Your task to perform on an android device: turn off smart reply in the gmail app Image 0: 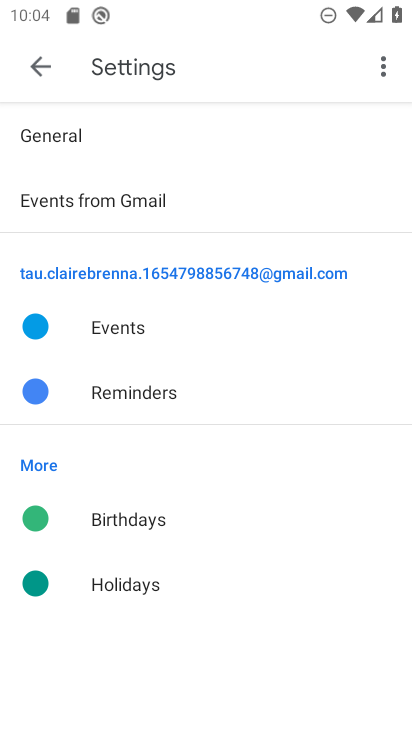
Step 0: press home button
Your task to perform on an android device: turn off smart reply in the gmail app Image 1: 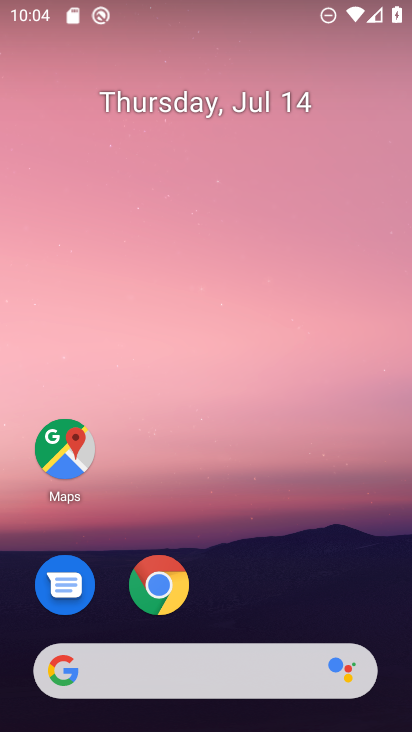
Step 1: drag from (241, 619) to (140, 120)
Your task to perform on an android device: turn off smart reply in the gmail app Image 2: 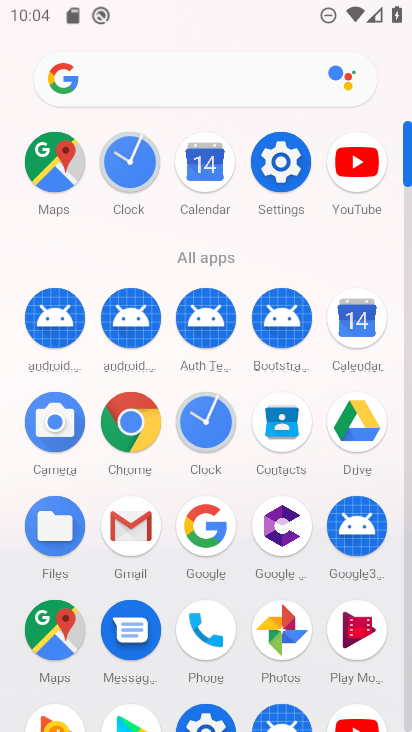
Step 2: click (135, 527)
Your task to perform on an android device: turn off smart reply in the gmail app Image 3: 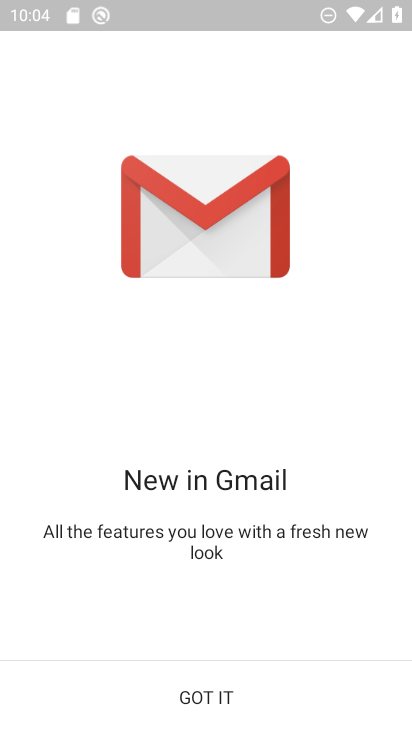
Step 3: click (195, 702)
Your task to perform on an android device: turn off smart reply in the gmail app Image 4: 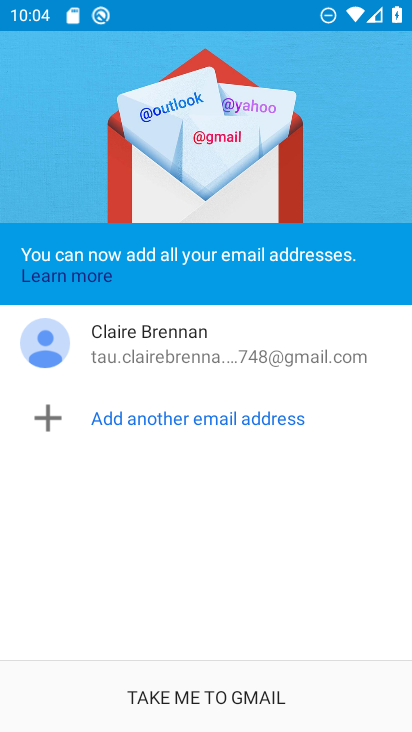
Step 4: click (195, 702)
Your task to perform on an android device: turn off smart reply in the gmail app Image 5: 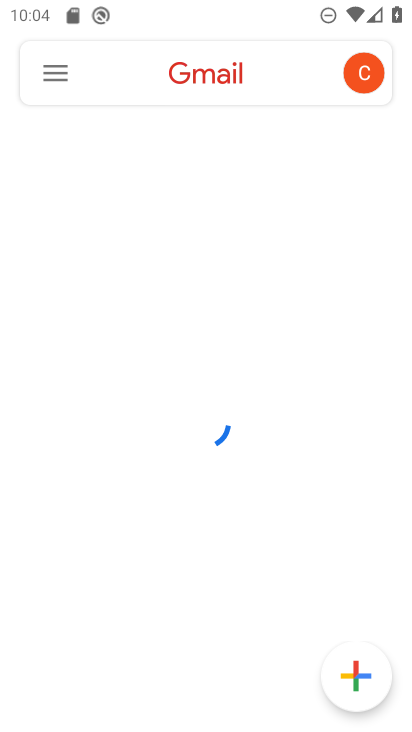
Step 5: click (52, 69)
Your task to perform on an android device: turn off smart reply in the gmail app Image 6: 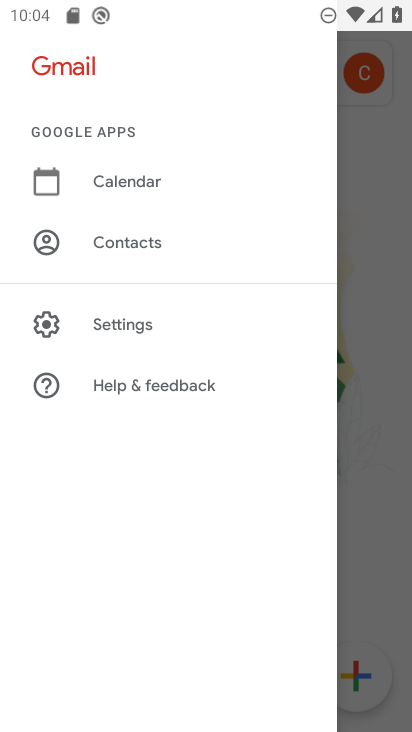
Step 6: click (127, 309)
Your task to perform on an android device: turn off smart reply in the gmail app Image 7: 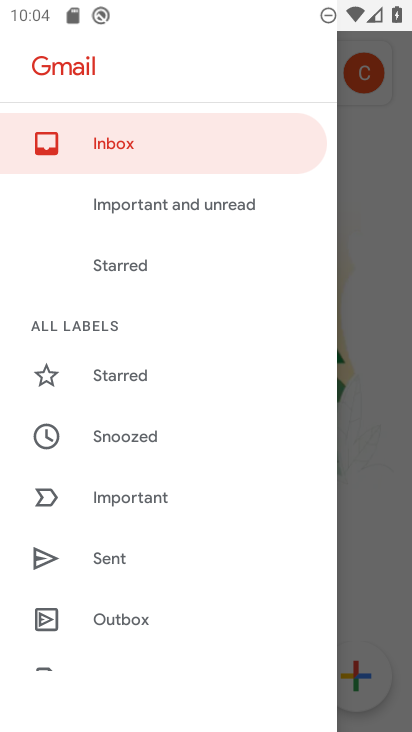
Step 7: drag from (213, 536) to (117, 96)
Your task to perform on an android device: turn off smart reply in the gmail app Image 8: 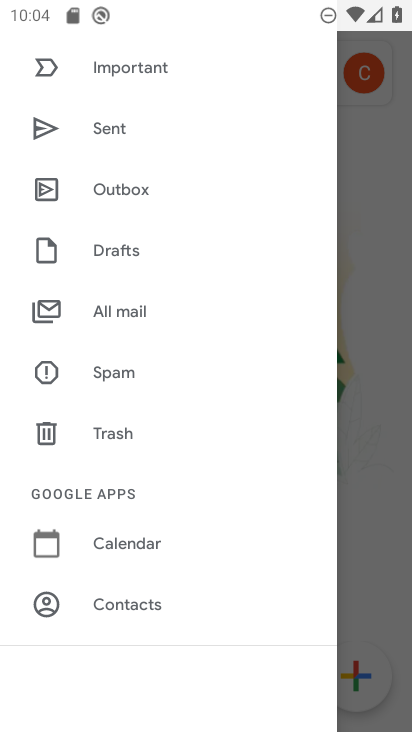
Step 8: drag from (112, 616) to (42, 268)
Your task to perform on an android device: turn off smart reply in the gmail app Image 9: 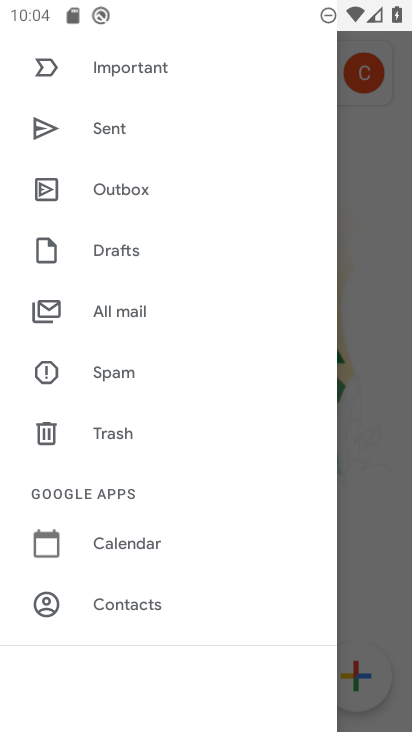
Step 9: drag from (145, 491) to (127, 147)
Your task to perform on an android device: turn off smart reply in the gmail app Image 10: 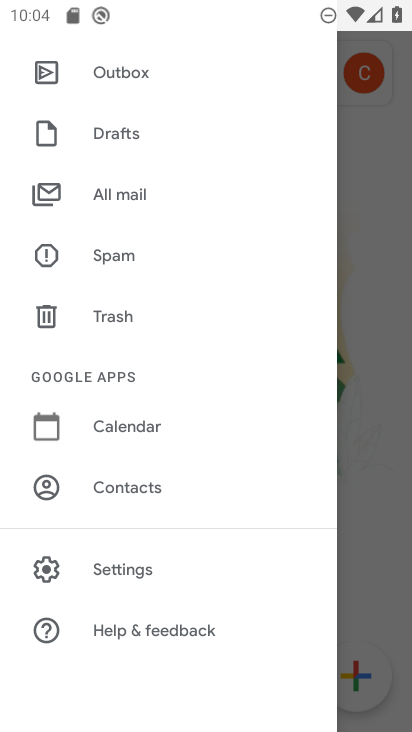
Step 10: click (122, 591)
Your task to perform on an android device: turn off smart reply in the gmail app Image 11: 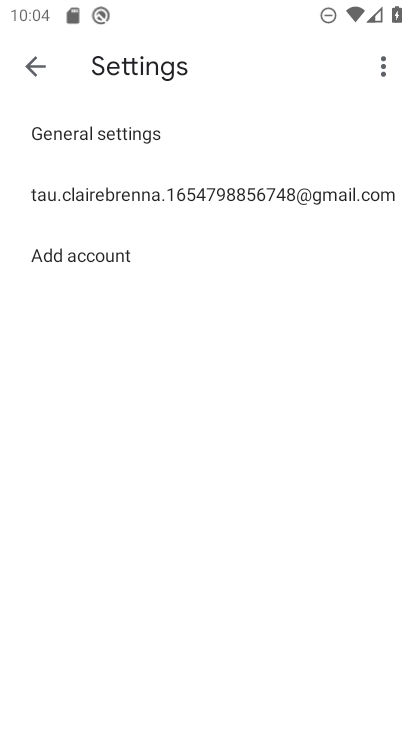
Step 11: click (105, 196)
Your task to perform on an android device: turn off smart reply in the gmail app Image 12: 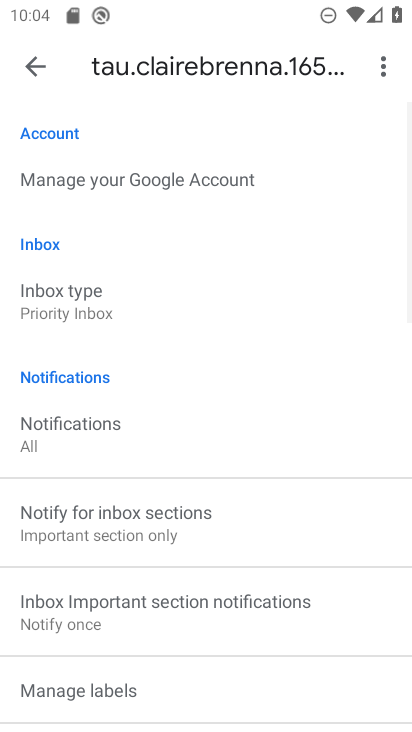
Step 12: drag from (306, 601) to (296, 10)
Your task to perform on an android device: turn off smart reply in the gmail app Image 13: 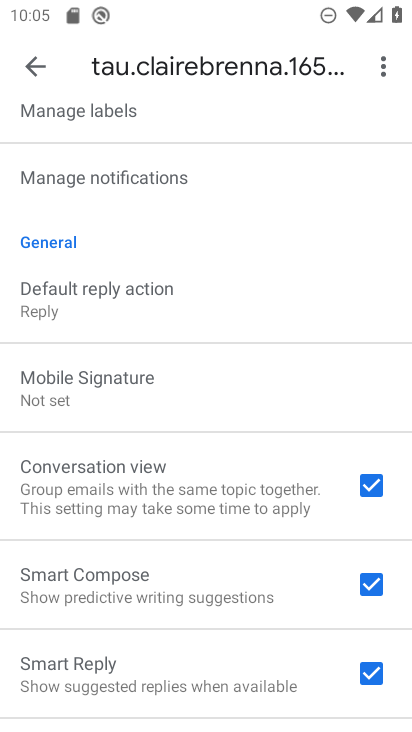
Step 13: click (371, 684)
Your task to perform on an android device: turn off smart reply in the gmail app Image 14: 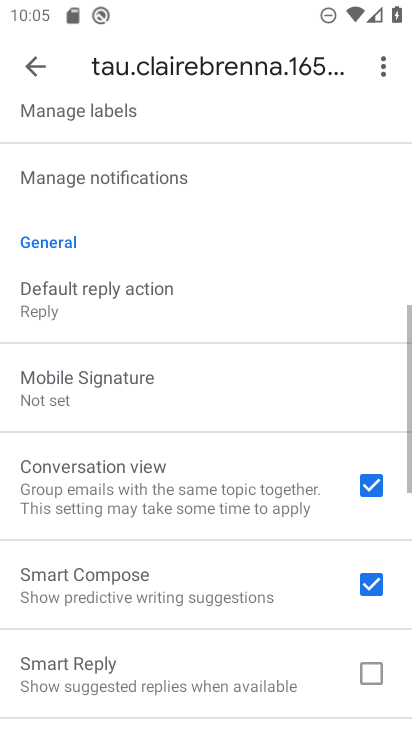
Step 14: task complete